Your task to perform on an android device: install app "Grab" Image 0: 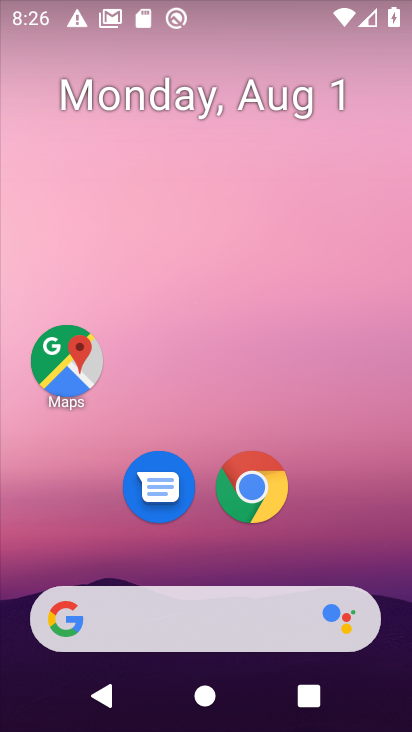
Step 0: press home button
Your task to perform on an android device: install app "Grab" Image 1: 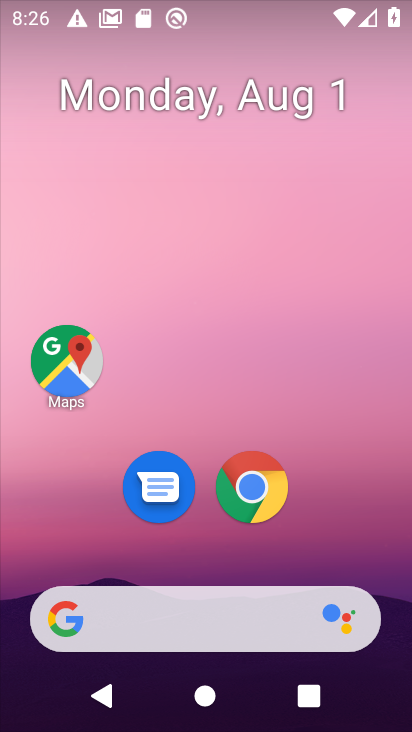
Step 1: drag from (374, 577) to (343, 56)
Your task to perform on an android device: install app "Grab" Image 2: 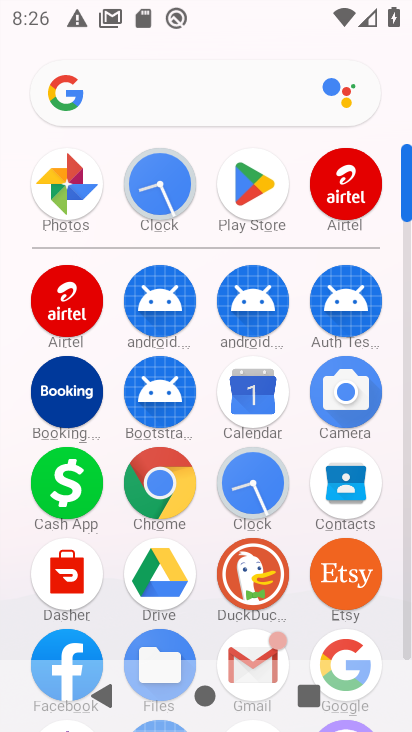
Step 2: click (254, 190)
Your task to perform on an android device: install app "Grab" Image 3: 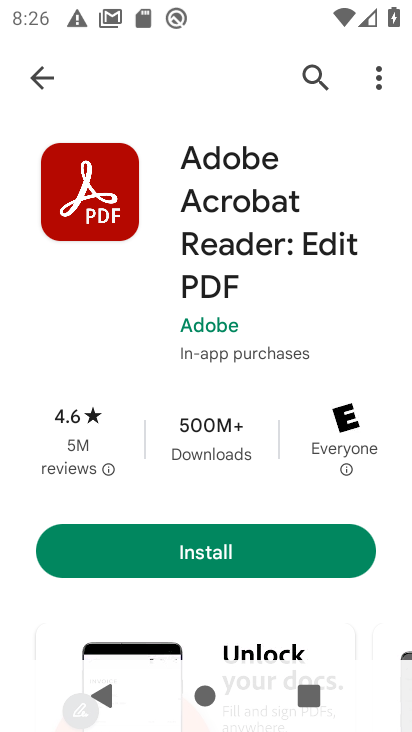
Step 3: click (314, 80)
Your task to perform on an android device: install app "Grab" Image 4: 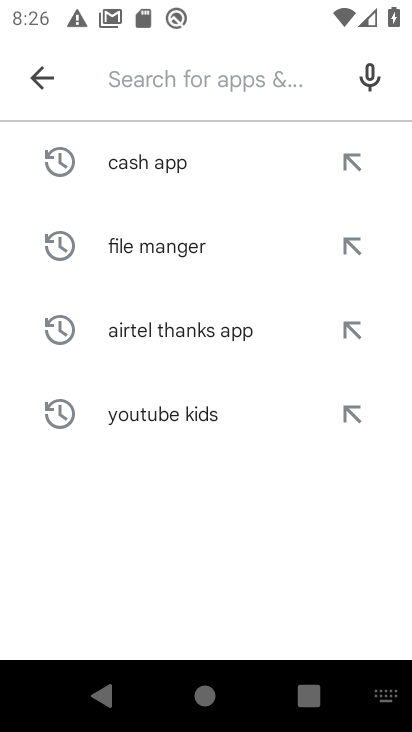
Step 4: click (238, 94)
Your task to perform on an android device: install app "Grab" Image 5: 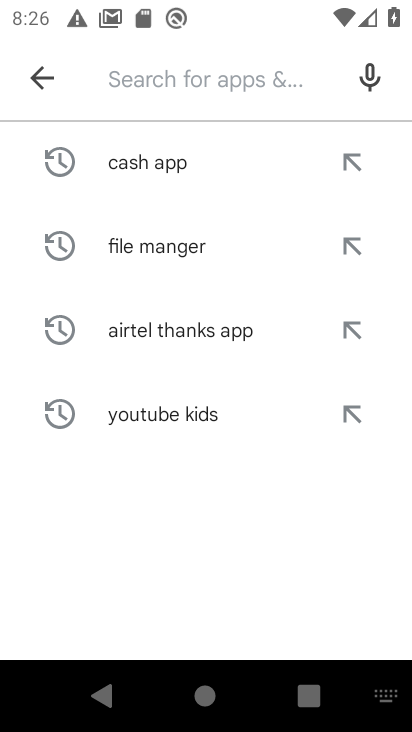
Step 5: type "grab"
Your task to perform on an android device: install app "Grab" Image 6: 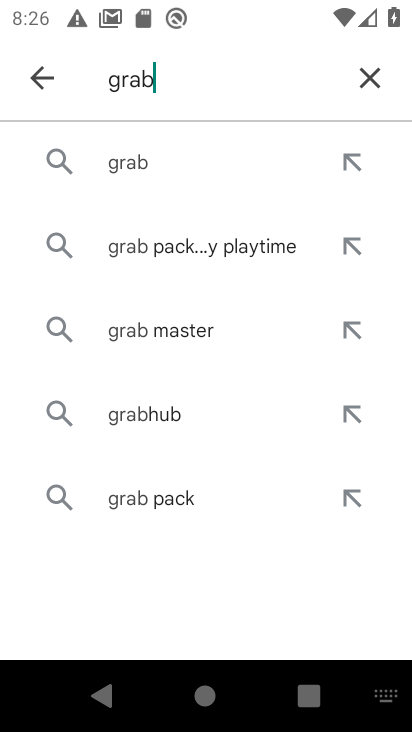
Step 6: click (141, 165)
Your task to perform on an android device: install app "Grab" Image 7: 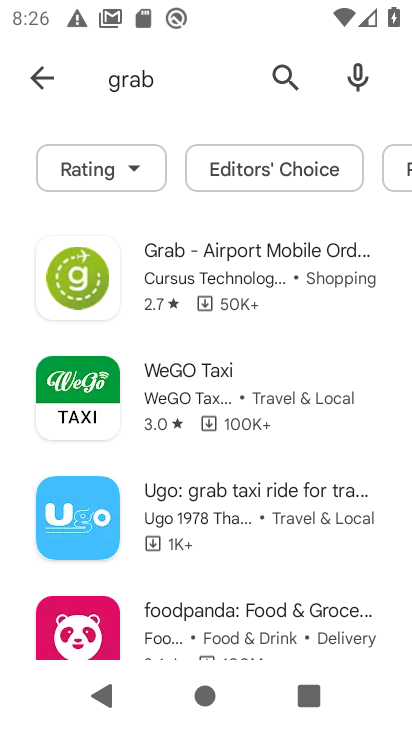
Step 7: task complete